Your task to perform on an android device: Open Yahoo.com Image 0: 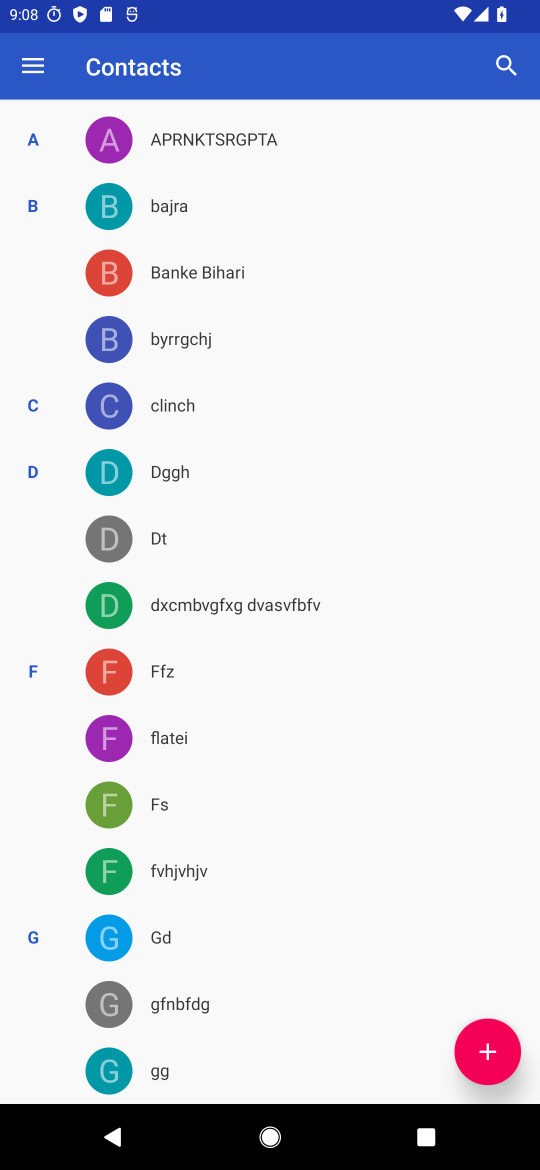
Step 0: press home button
Your task to perform on an android device: Open Yahoo.com Image 1: 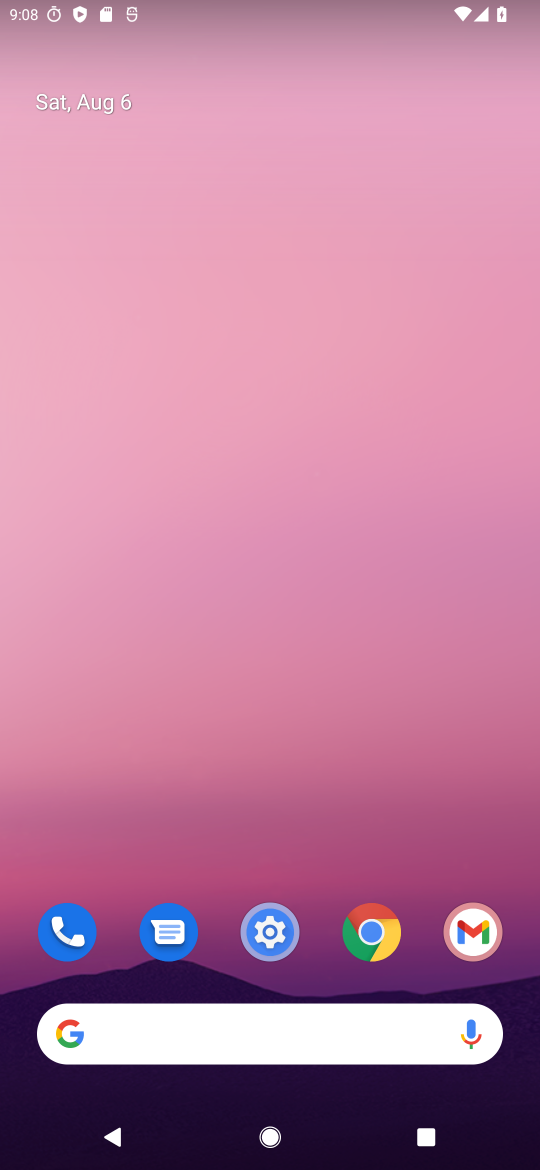
Step 1: click (376, 922)
Your task to perform on an android device: Open Yahoo.com Image 2: 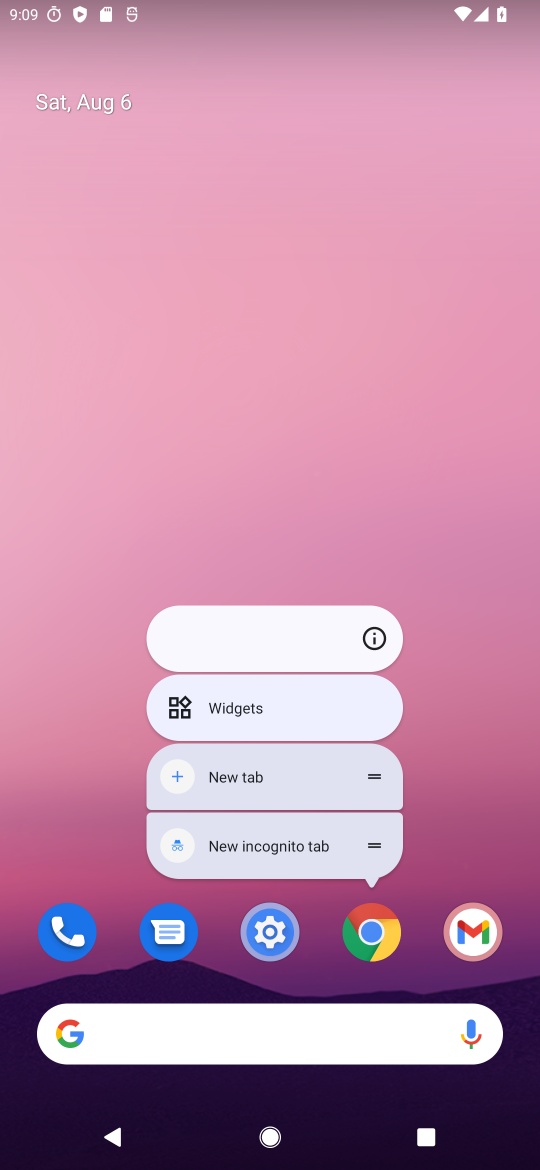
Step 2: click (376, 936)
Your task to perform on an android device: Open Yahoo.com Image 3: 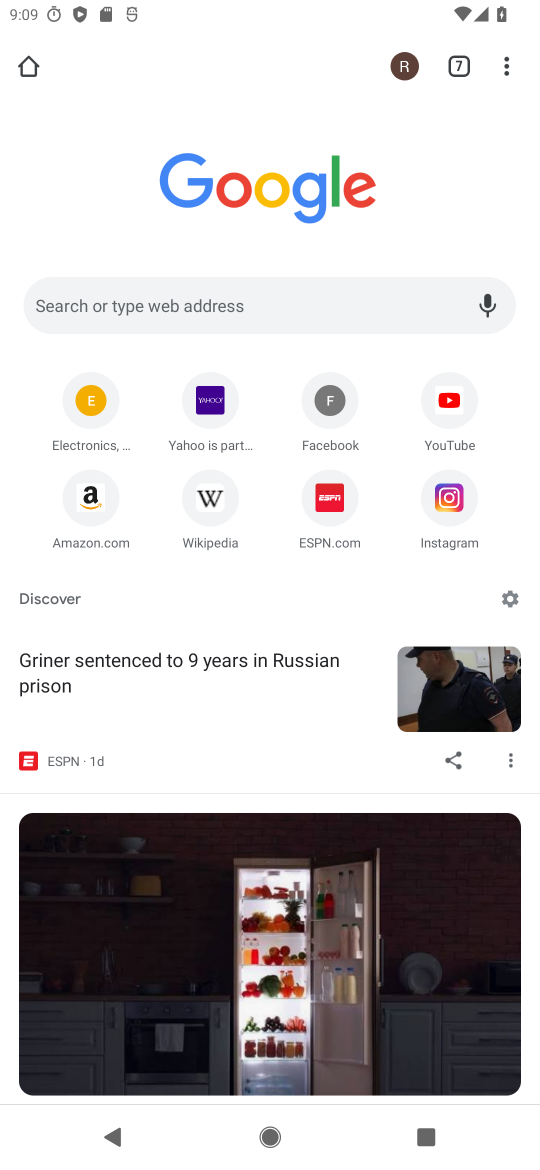
Step 3: click (215, 399)
Your task to perform on an android device: Open Yahoo.com Image 4: 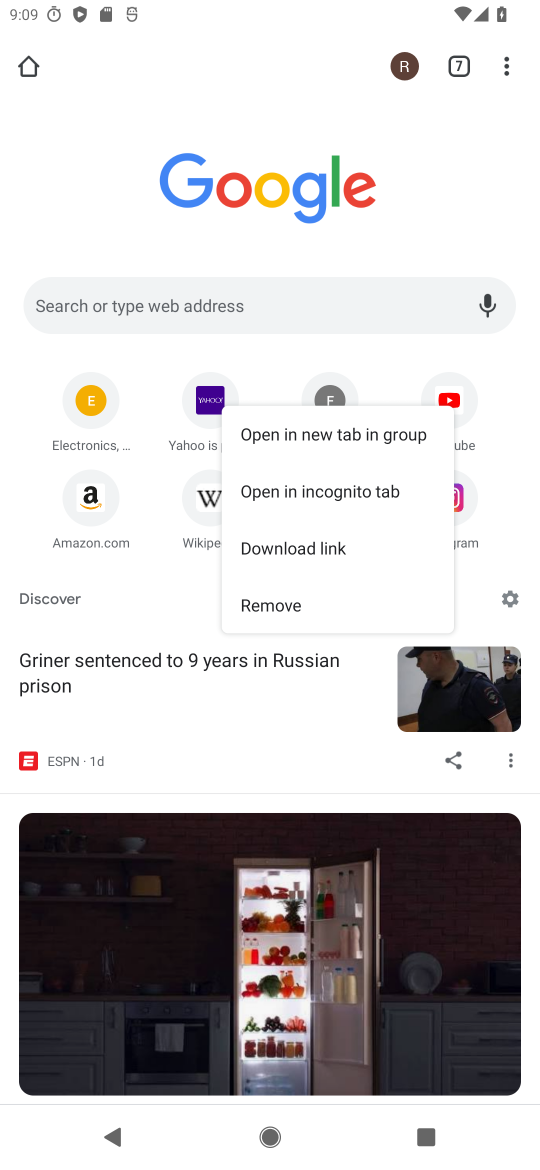
Step 4: click (205, 394)
Your task to perform on an android device: Open Yahoo.com Image 5: 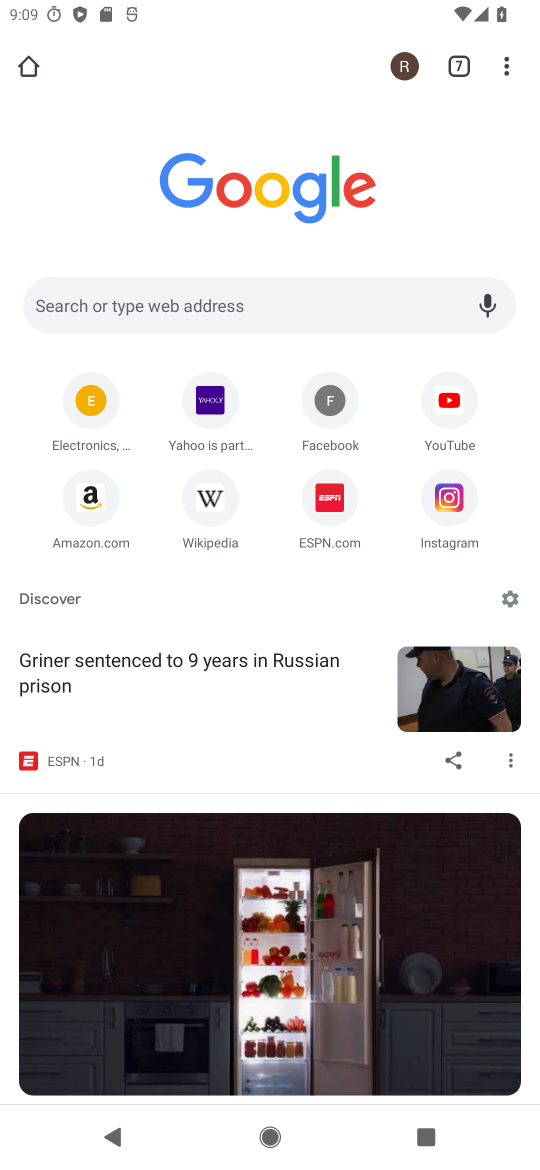
Step 5: click (205, 395)
Your task to perform on an android device: Open Yahoo.com Image 6: 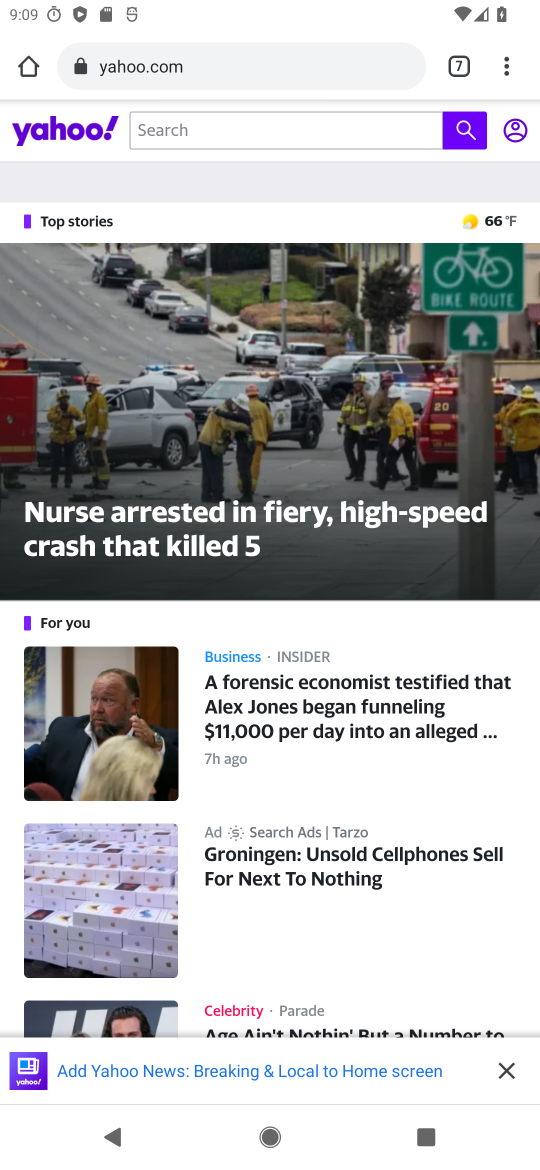
Step 6: task complete